Your task to perform on an android device: Add macbook pro 15 inch to the cart on costco, then select checkout. Image 0: 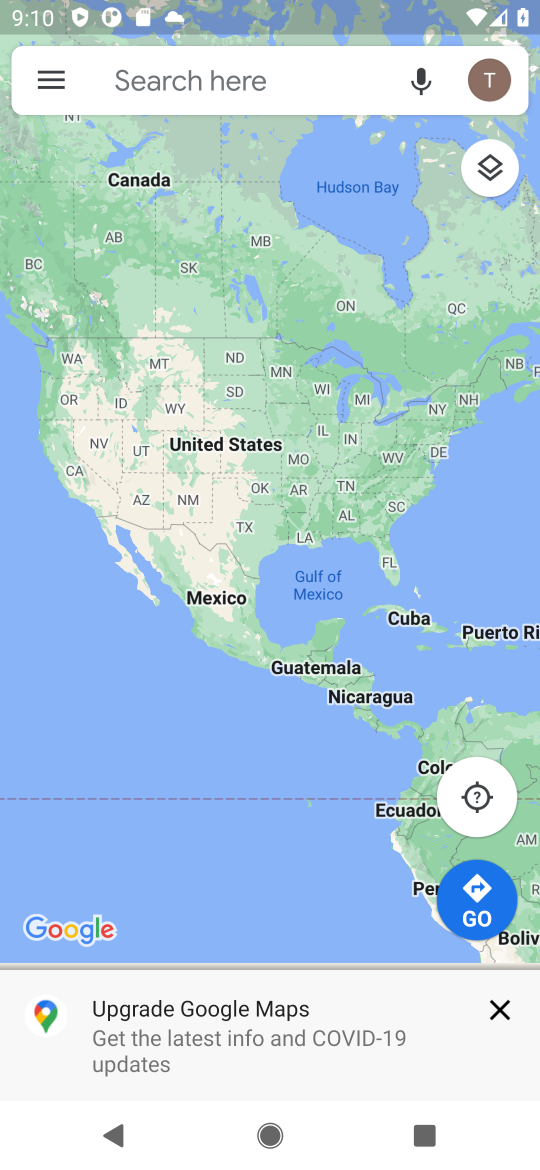
Step 0: press home button
Your task to perform on an android device: Add macbook pro 15 inch to the cart on costco, then select checkout. Image 1: 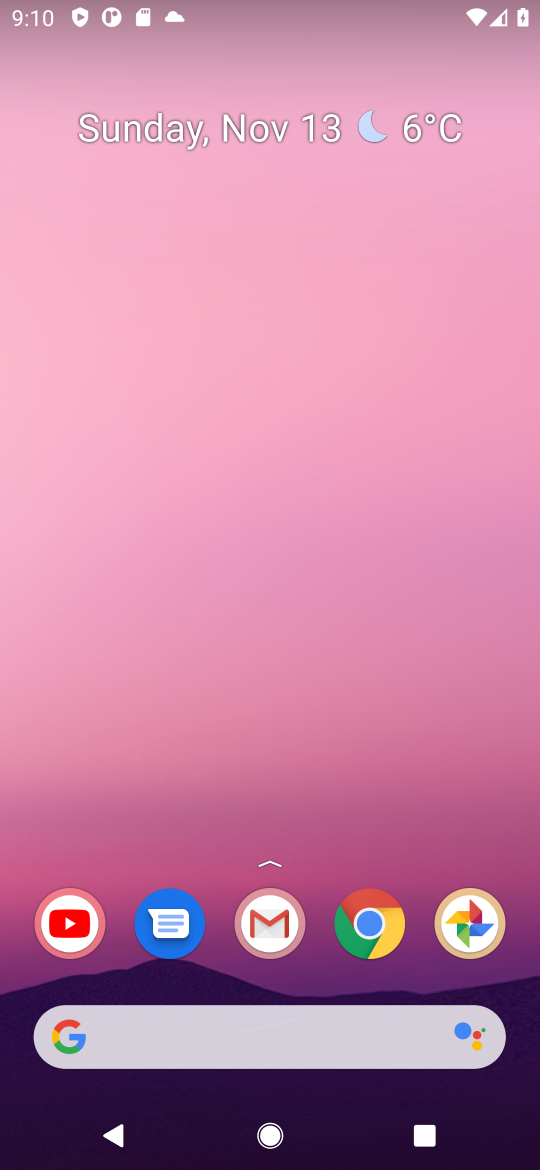
Step 1: click (363, 924)
Your task to perform on an android device: Add macbook pro 15 inch to the cart on costco, then select checkout. Image 2: 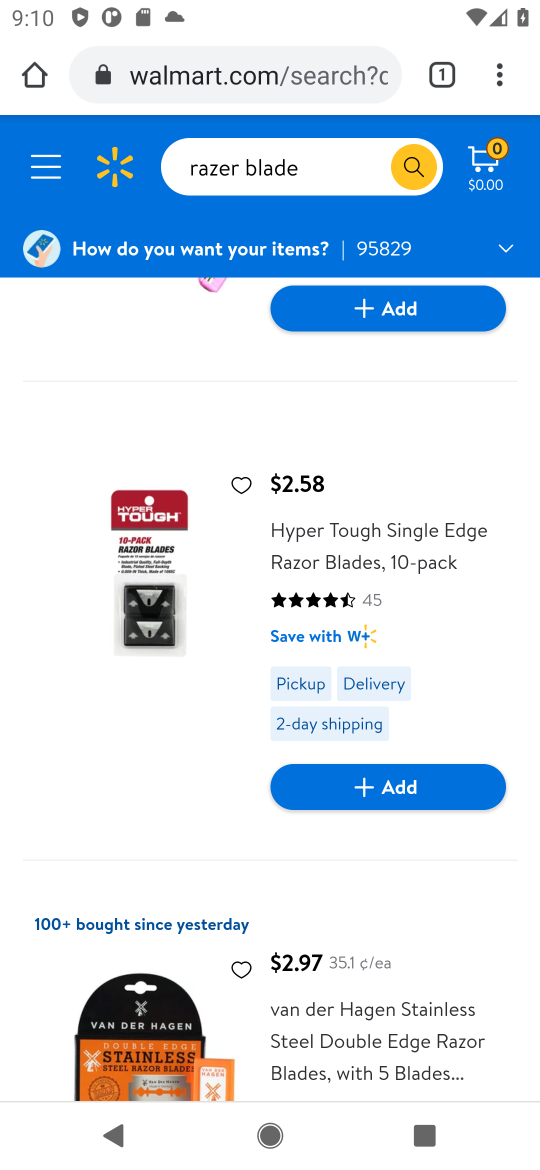
Step 2: click (314, 63)
Your task to perform on an android device: Add macbook pro 15 inch to the cart on costco, then select checkout. Image 3: 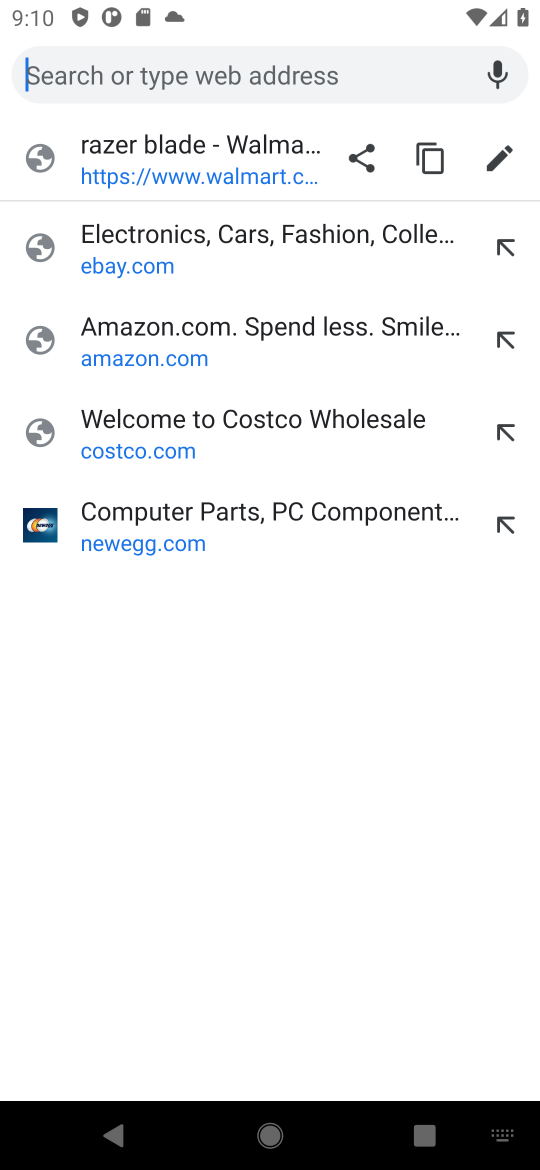
Step 3: click (273, 427)
Your task to perform on an android device: Add macbook pro 15 inch to the cart on costco, then select checkout. Image 4: 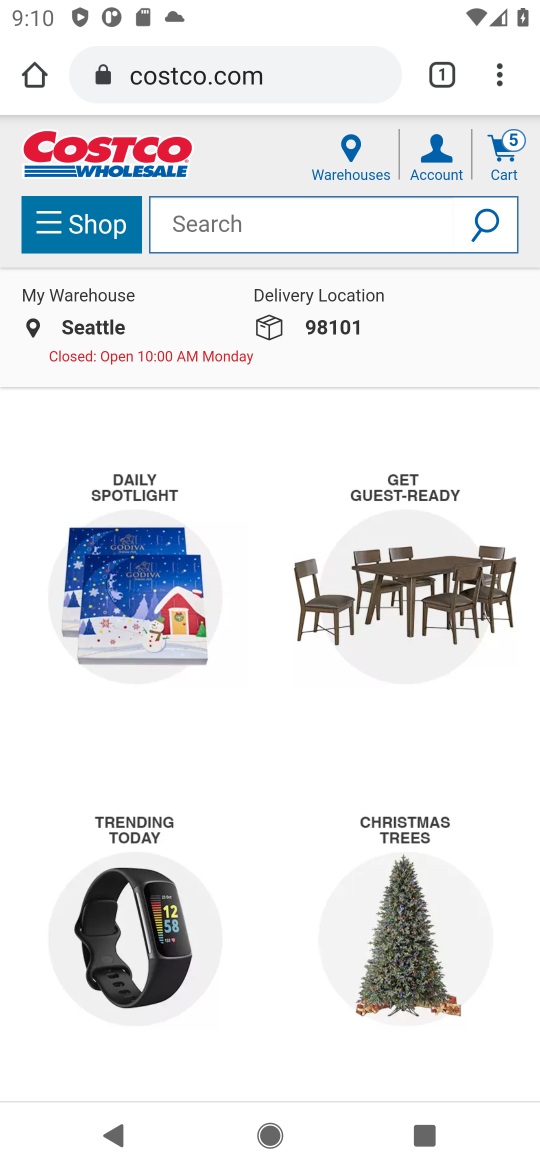
Step 4: type "macbook pro 15 inch"
Your task to perform on an android device: Add macbook pro 15 inch to the cart on costco, then select checkout. Image 5: 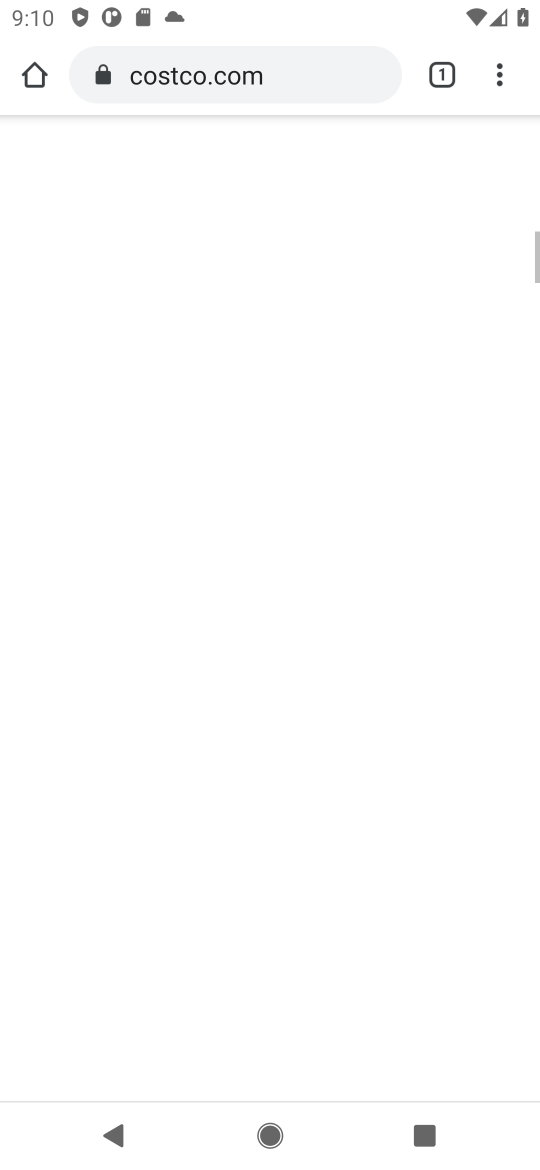
Step 5: press enter
Your task to perform on an android device: Add macbook pro 15 inch to the cart on costco, then select checkout. Image 6: 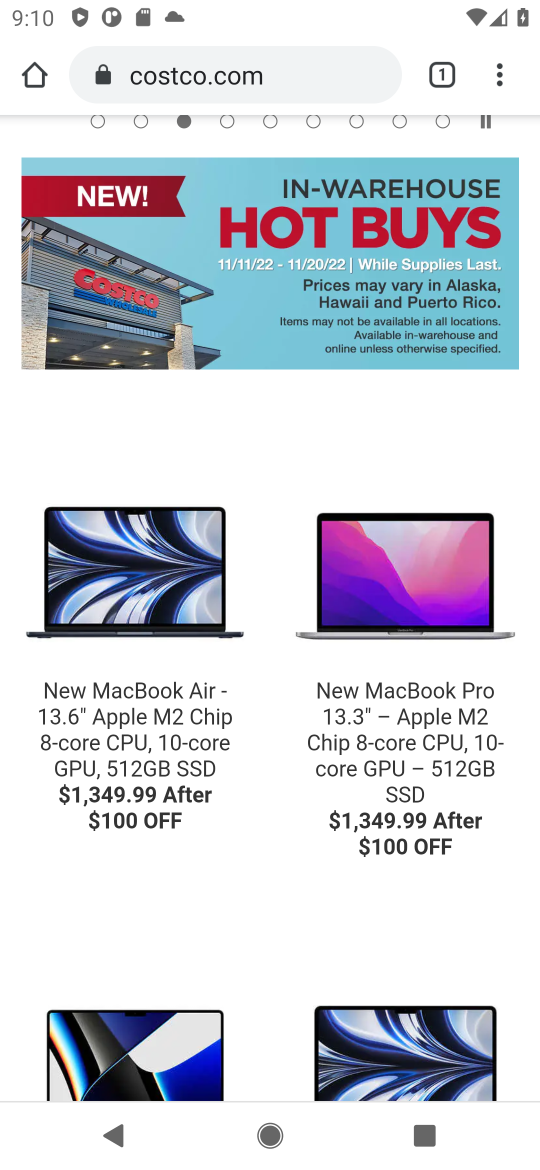
Step 6: drag from (358, 290) to (461, 1000)
Your task to perform on an android device: Add macbook pro 15 inch to the cart on costco, then select checkout. Image 7: 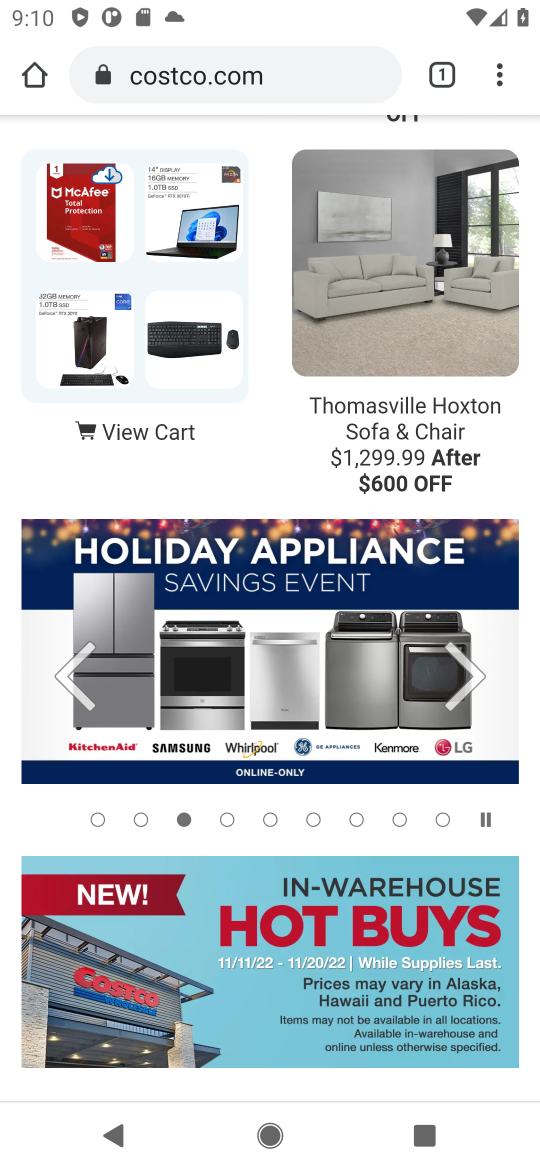
Step 7: drag from (279, 290) to (250, 988)
Your task to perform on an android device: Add macbook pro 15 inch to the cart on costco, then select checkout. Image 8: 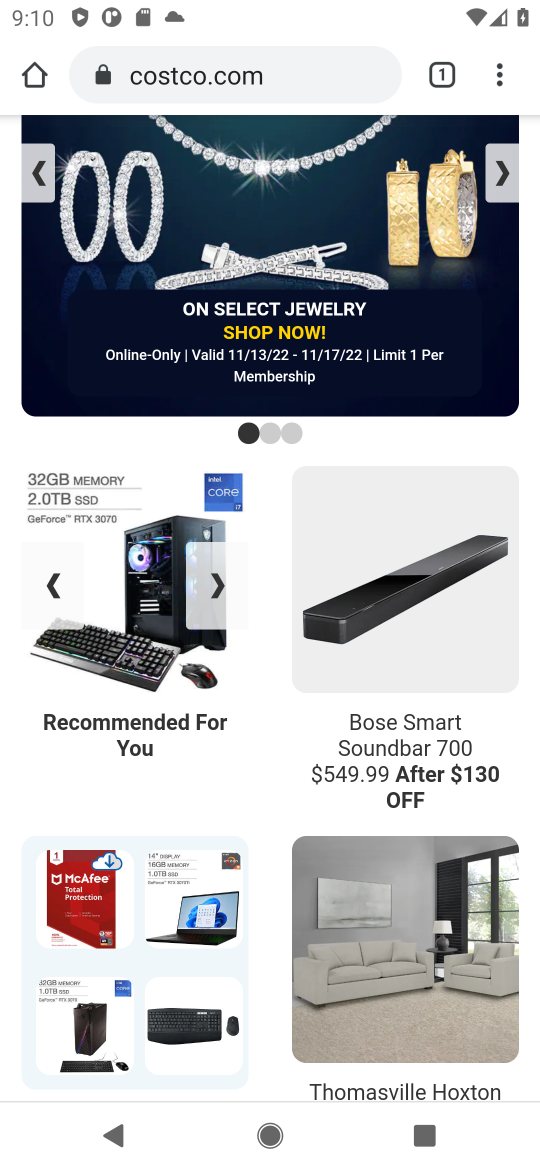
Step 8: drag from (270, 495) to (297, 1120)
Your task to perform on an android device: Add macbook pro 15 inch to the cart on costco, then select checkout. Image 9: 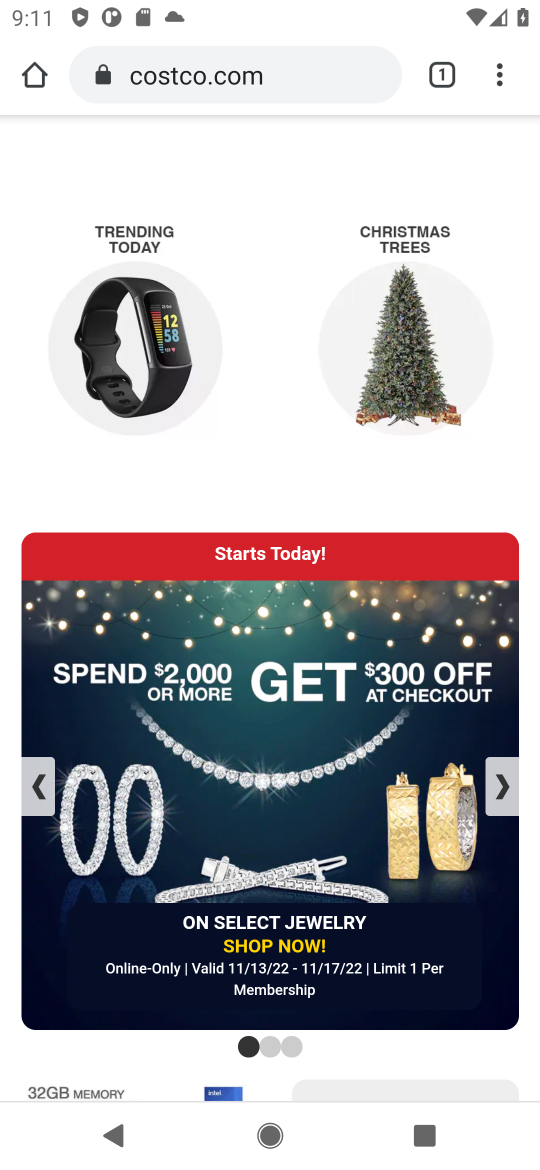
Step 9: drag from (360, 185) to (398, 1061)
Your task to perform on an android device: Add macbook pro 15 inch to the cart on costco, then select checkout. Image 10: 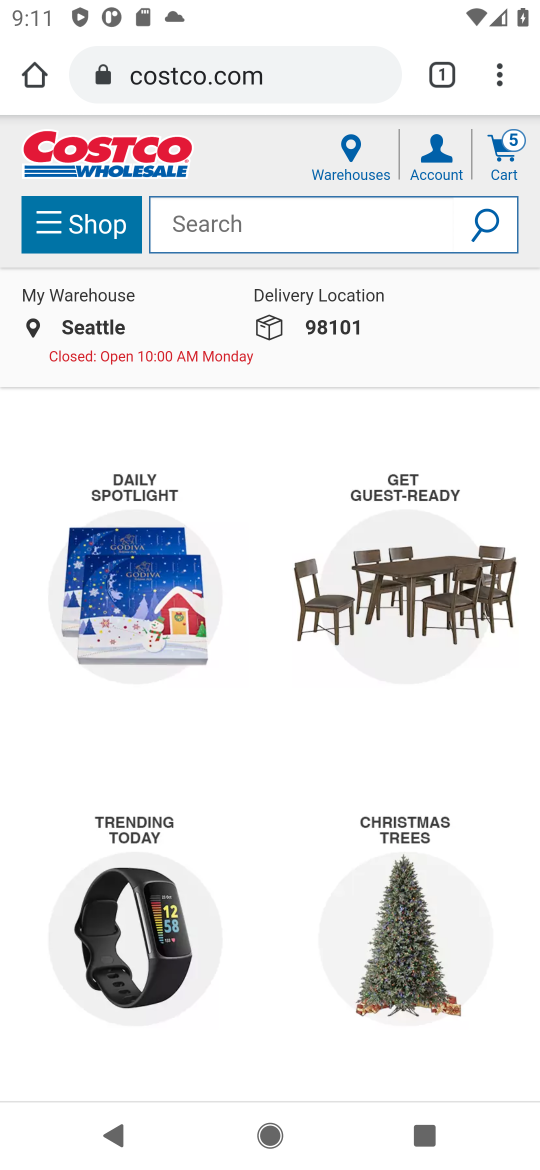
Step 10: click (312, 220)
Your task to perform on an android device: Add macbook pro 15 inch to the cart on costco, then select checkout. Image 11: 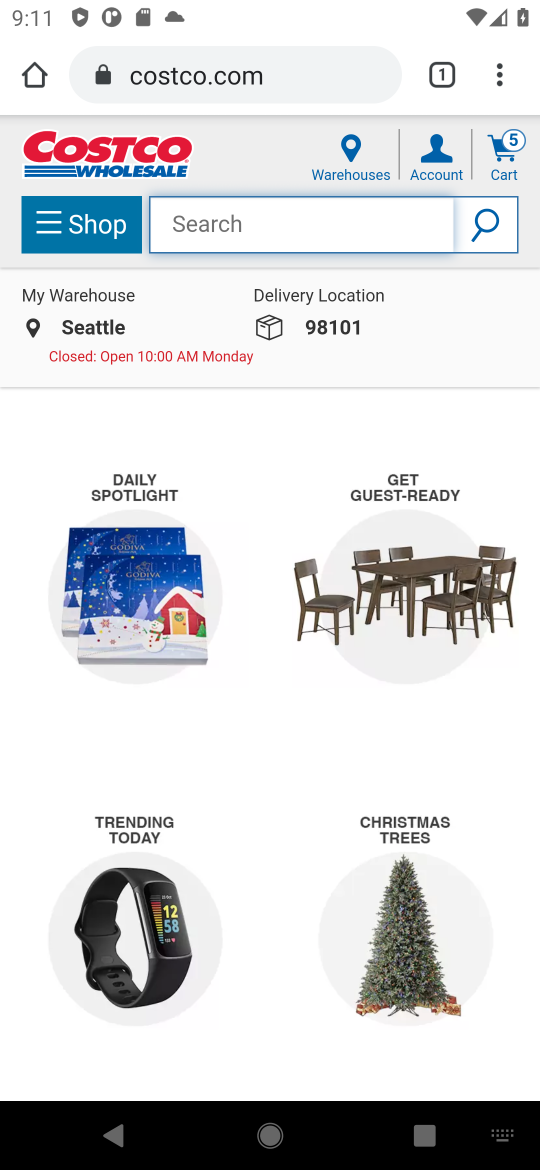
Step 11: type "macbook pro 15 inch"
Your task to perform on an android device: Add macbook pro 15 inch to the cart on costco, then select checkout. Image 12: 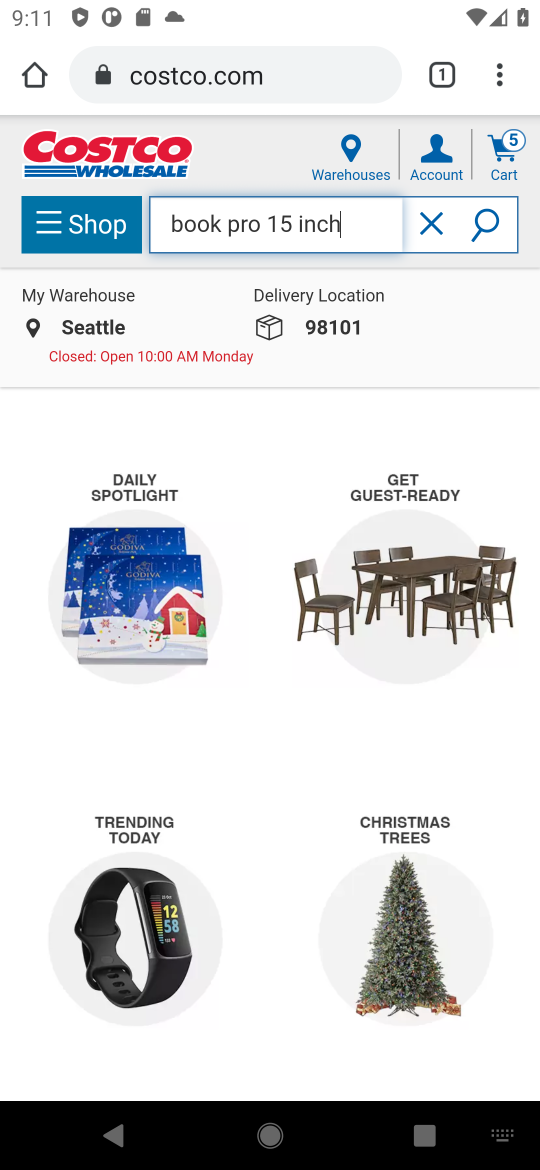
Step 12: press enter
Your task to perform on an android device: Add macbook pro 15 inch to the cart on costco, then select checkout. Image 13: 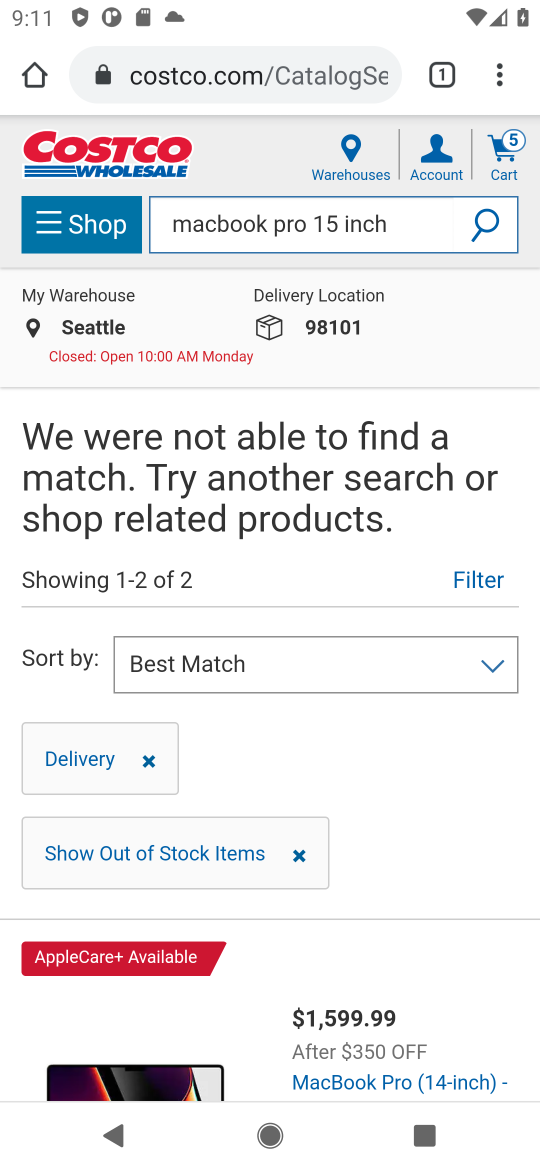
Step 13: task complete